Your task to perform on an android device: open app "Adobe Express: Graphic Design" (install if not already installed) Image 0: 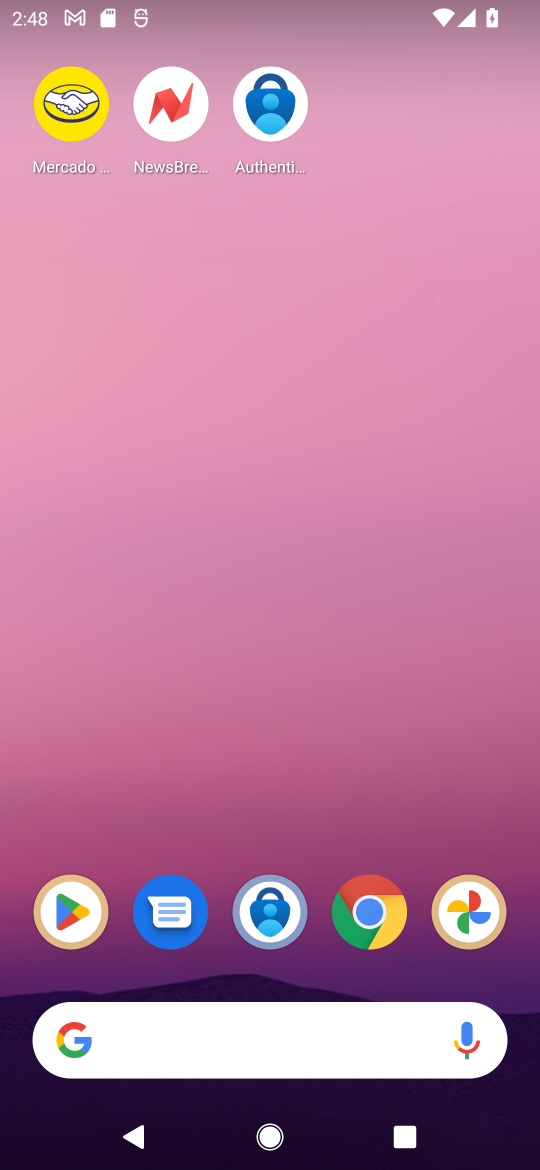
Step 0: click (81, 923)
Your task to perform on an android device: open app "Adobe Express: Graphic Design" (install if not already installed) Image 1: 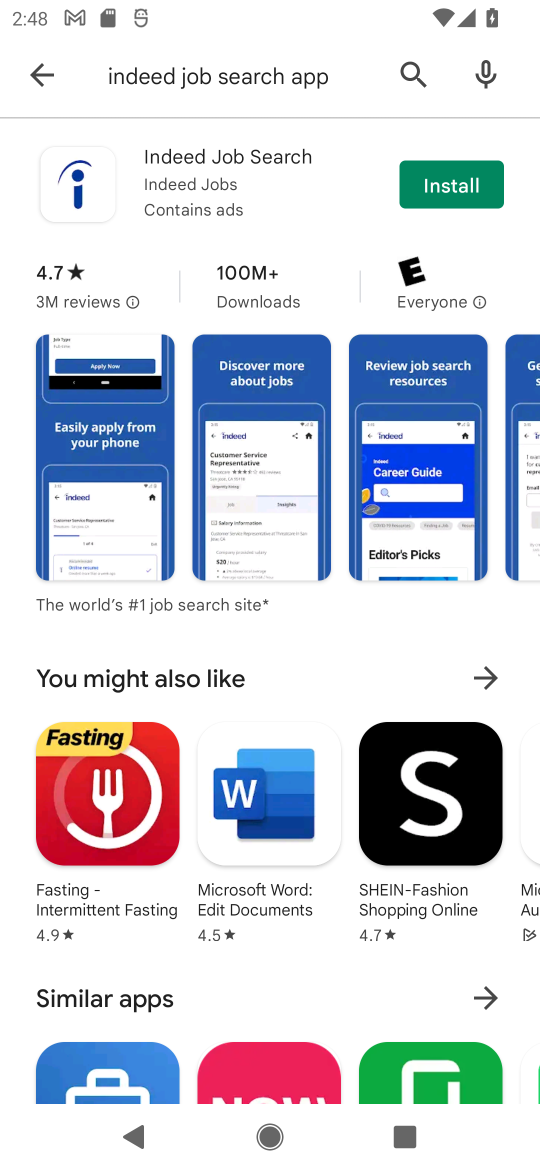
Step 1: click (405, 81)
Your task to perform on an android device: open app "Adobe Express: Graphic Design" (install if not already installed) Image 2: 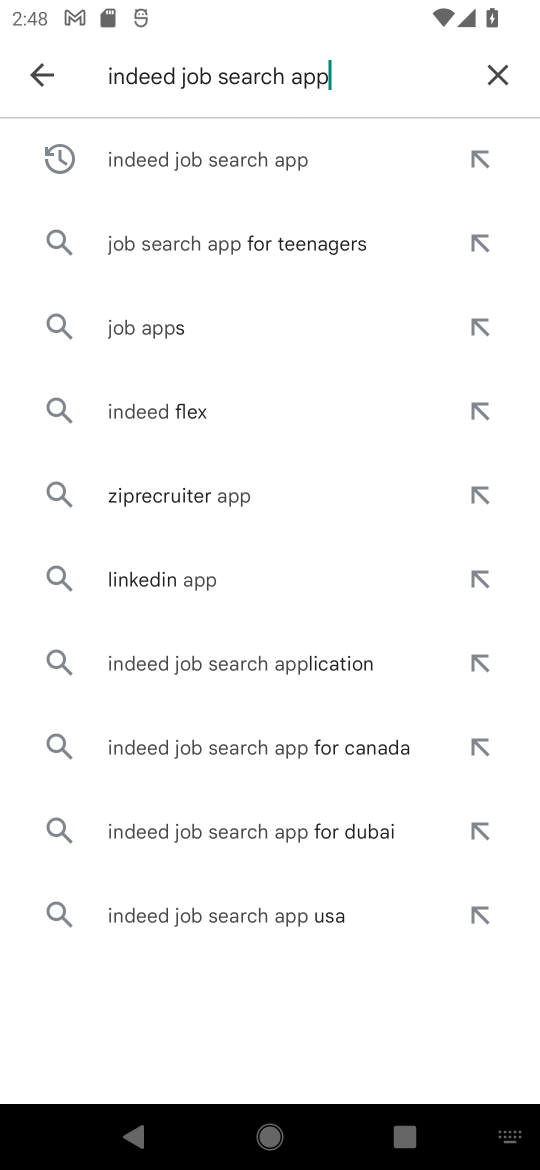
Step 2: click (501, 84)
Your task to perform on an android device: open app "Adobe Express: Graphic Design" (install if not already installed) Image 3: 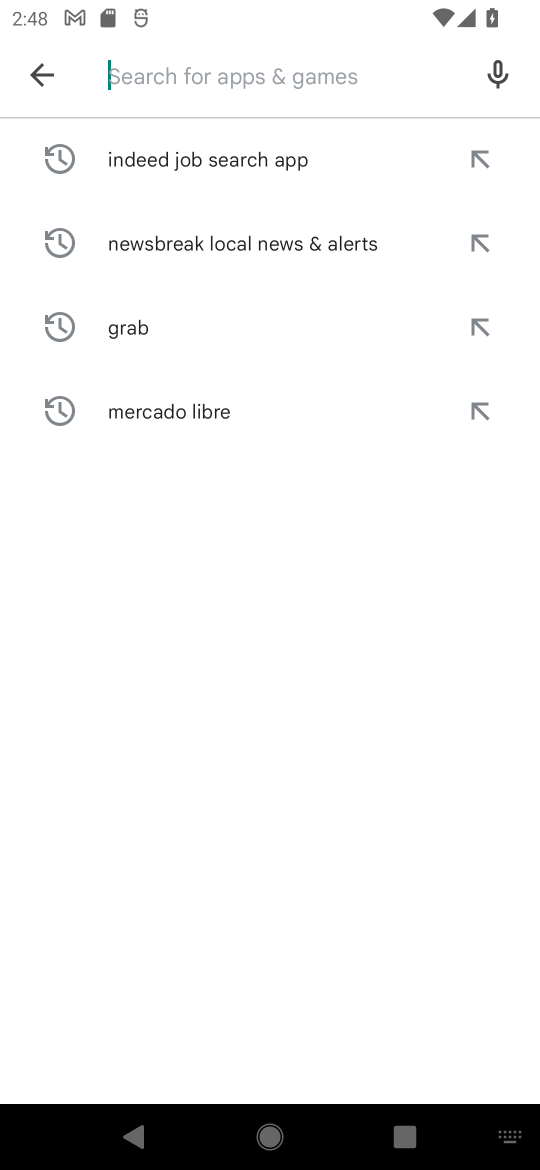
Step 3: type "Adobe Express: Graphic Design"
Your task to perform on an android device: open app "Adobe Express: Graphic Design" (install if not already installed) Image 4: 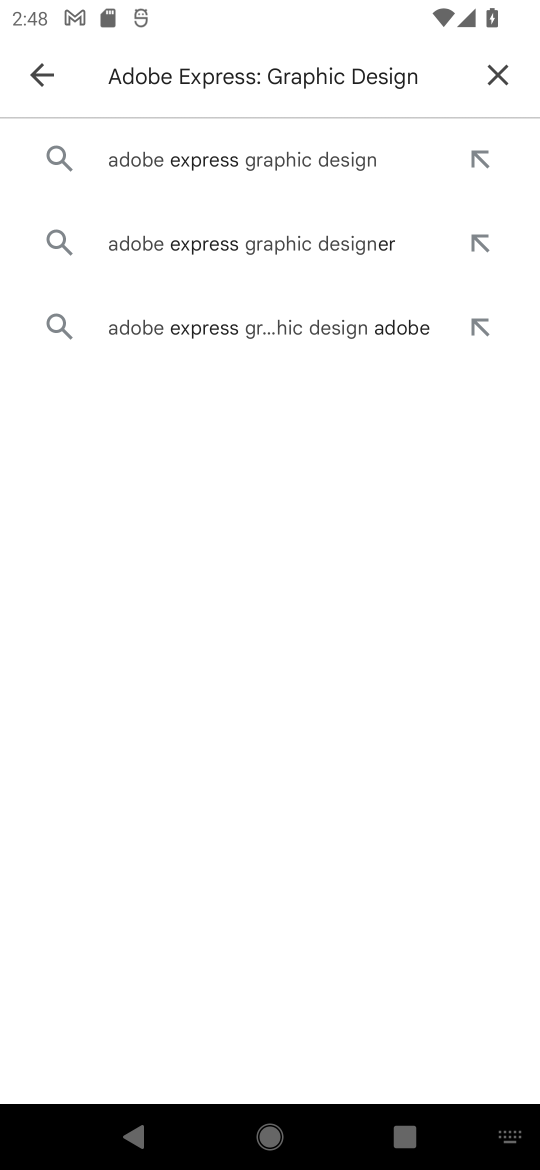
Step 4: click (292, 157)
Your task to perform on an android device: open app "Adobe Express: Graphic Design" (install if not already installed) Image 5: 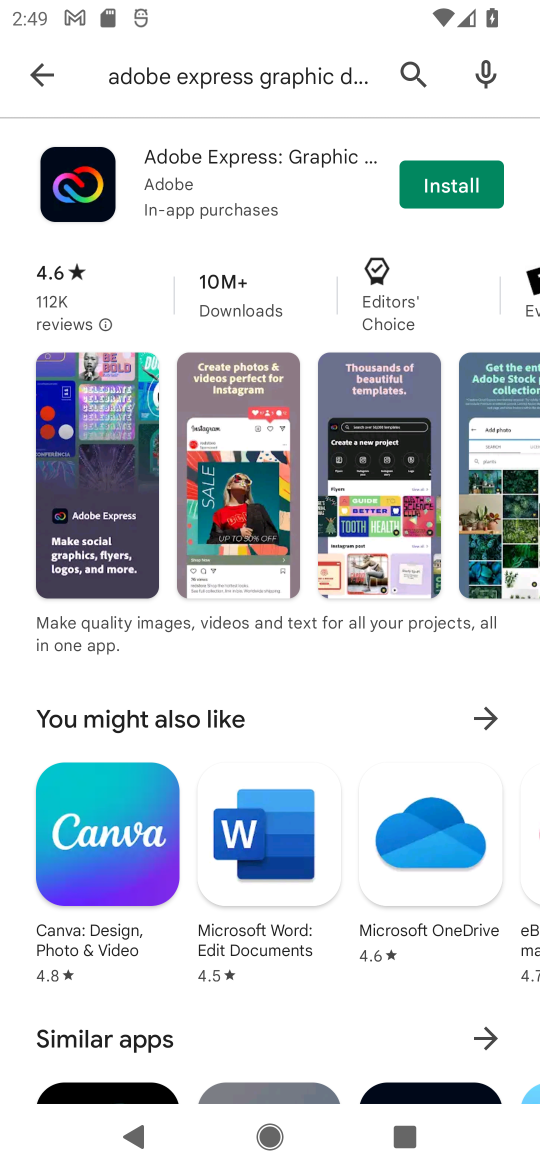
Step 5: click (445, 192)
Your task to perform on an android device: open app "Adobe Express: Graphic Design" (install if not already installed) Image 6: 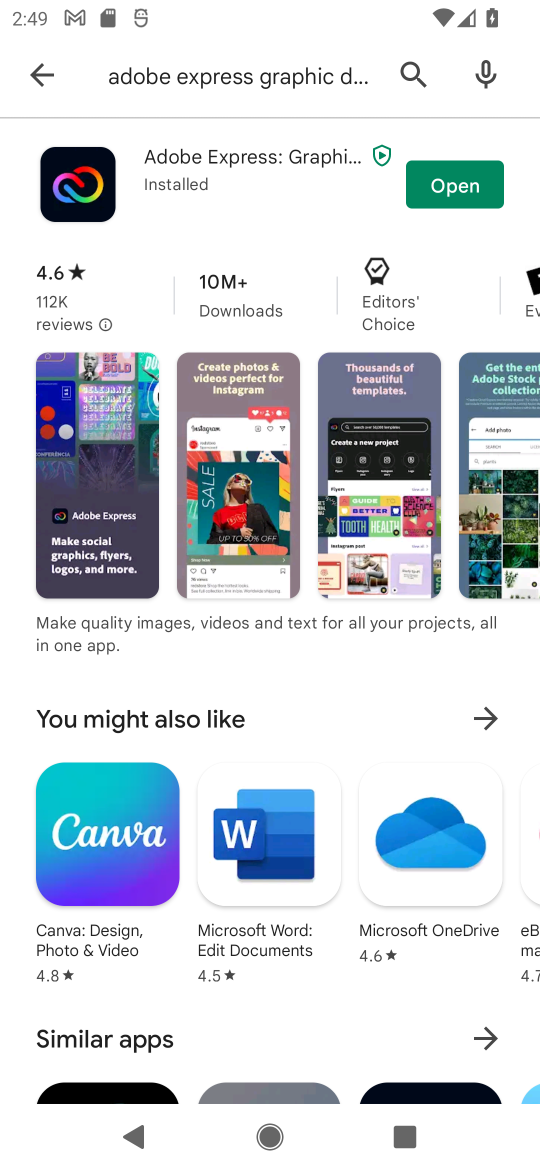
Step 6: click (434, 198)
Your task to perform on an android device: open app "Adobe Express: Graphic Design" (install if not already installed) Image 7: 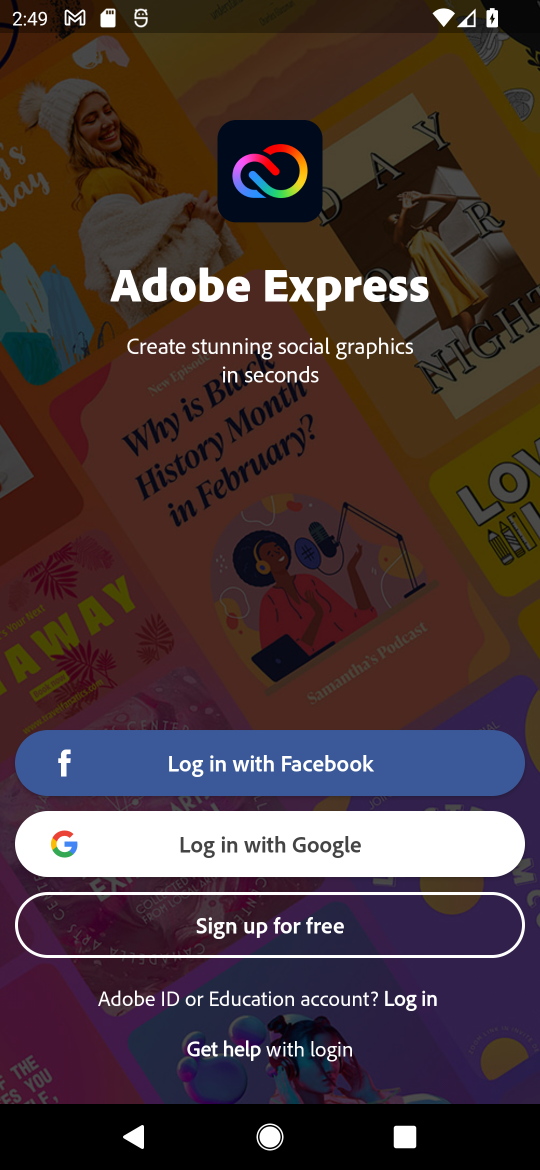
Step 7: task complete